Your task to perform on an android device: turn off improve location accuracy Image 0: 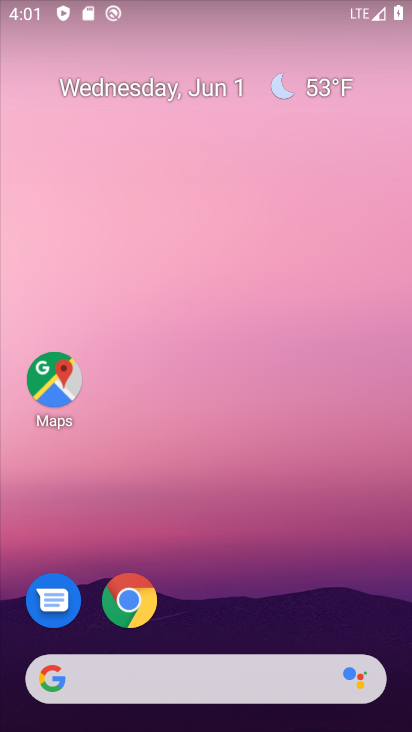
Step 0: press back button
Your task to perform on an android device: turn off improve location accuracy Image 1: 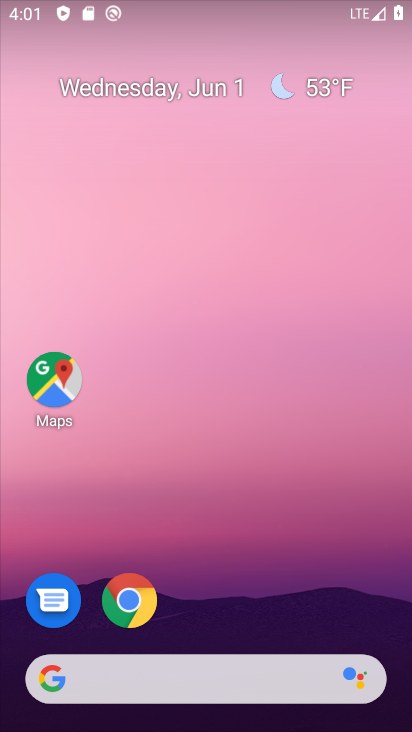
Step 1: drag from (85, 51) to (179, 168)
Your task to perform on an android device: turn off improve location accuracy Image 2: 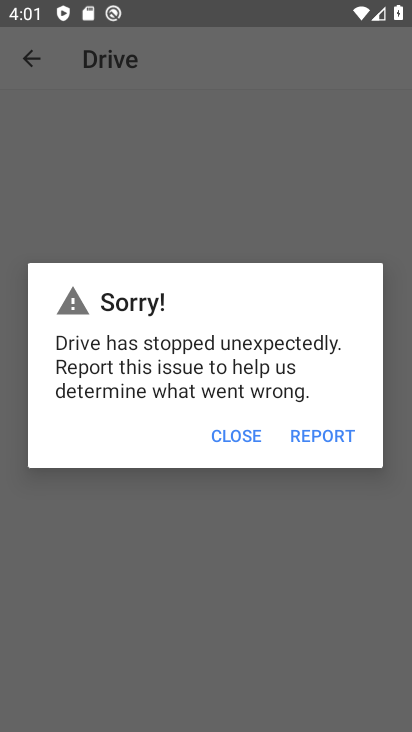
Step 2: click (240, 434)
Your task to perform on an android device: turn off improve location accuracy Image 3: 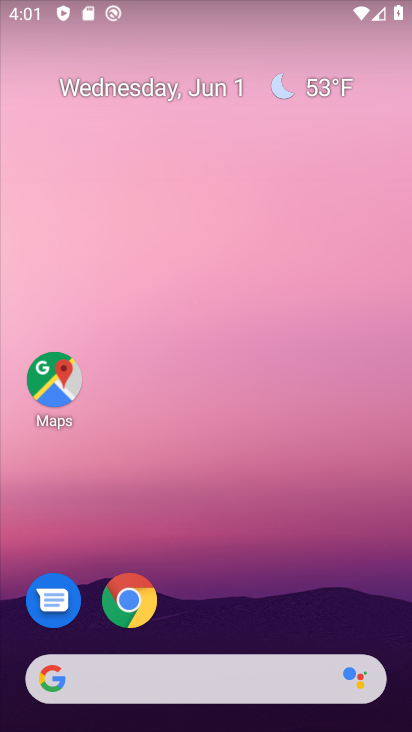
Step 3: drag from (281, 701) to (151, 130)
Your task to perform on an android device: turn off improve location accuracy Image 4: 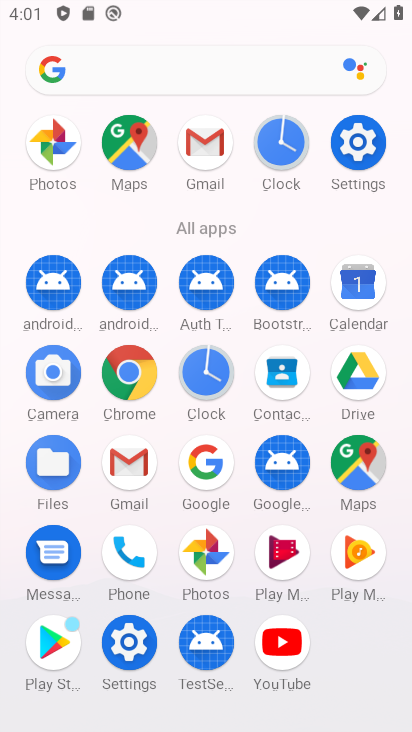
Step 4: click (130, 643)
Your task to perform on an android device: turn off improve location accuracy Image 5: 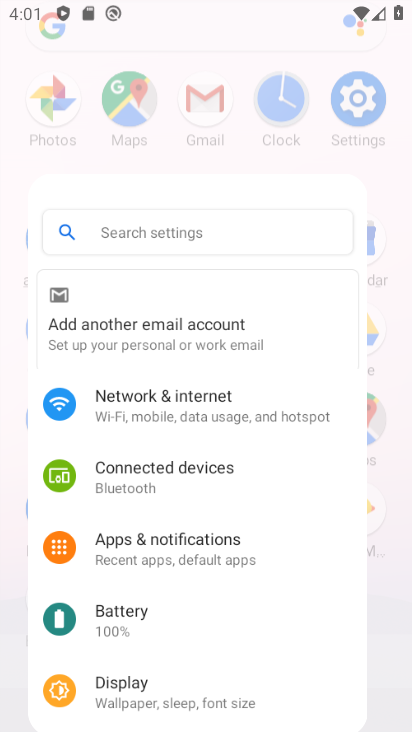
Step 5: click (130, 643)
Your task to perform on an android device: turn off improve location accuracy Image 6: 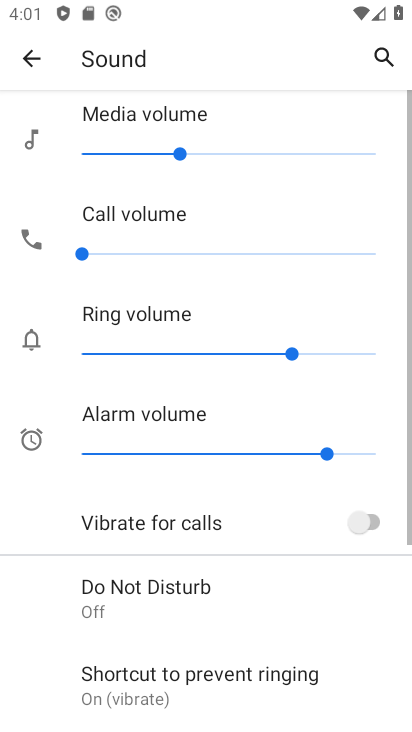
Step 6: click (44, 57)
Your task to perform on an android device: turn off improve location accuracy Image 7: 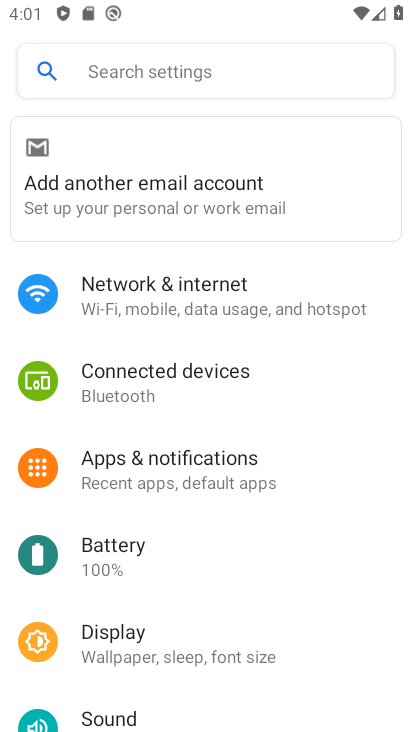
Step 7: drag from (185, 570) to (137, 95)
Your task to perform on an android device: turn off improve location accuracy Image 8: 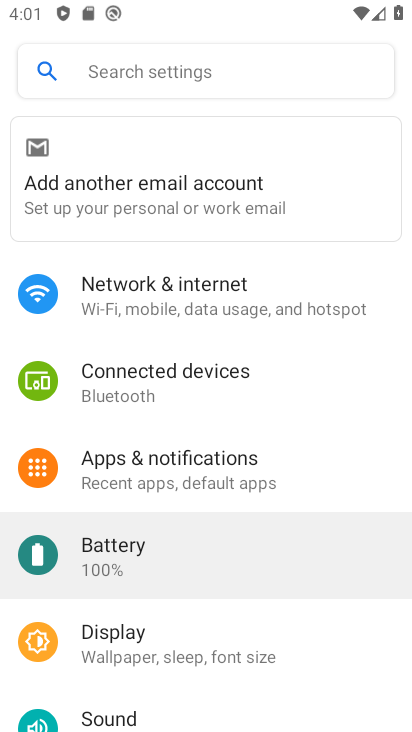
Step 8: drag from (225, 512) to (205, 192)
Your task to perform on an android device: turn off improve location accuracy Image 9: 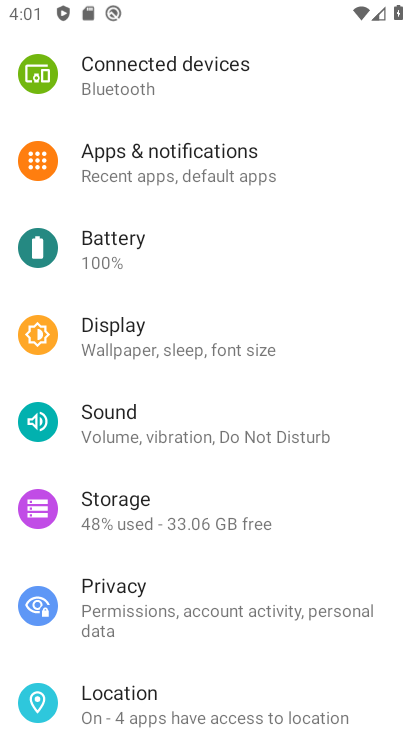
Step 9: drag from (195, 567) to (133, 211)
Your task to perform on an android device: turn off improve location accuracy Image 10: 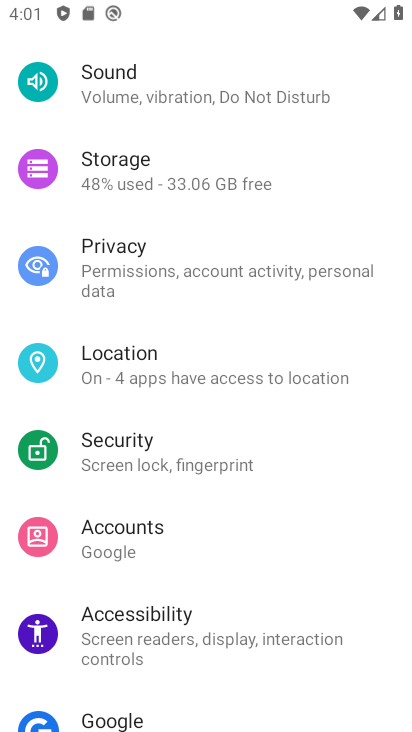
Step 10: drag from (117, 559) to (116, 109)
Your task to perform on an android device: turn off improve location accuracy Image 11: 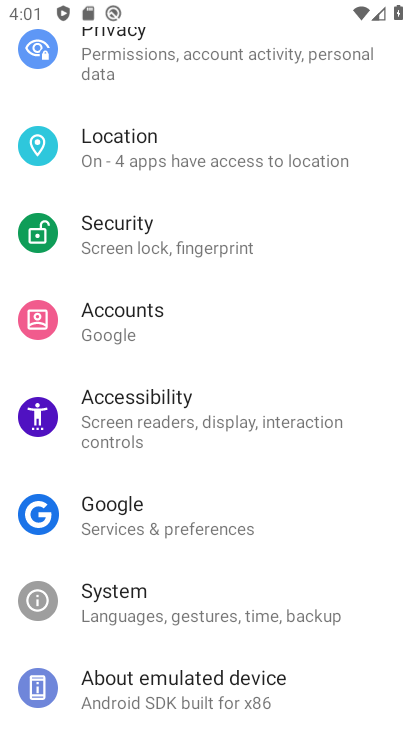
Step 11: click (144, 159)
Your task to perform on an android device: turn off improve location accuracy Image 12: 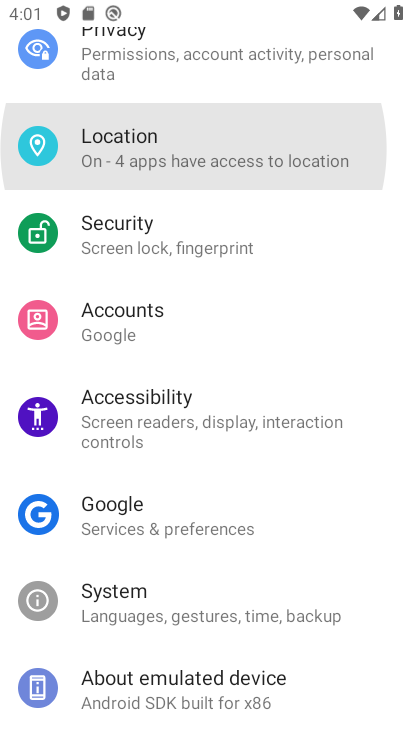
Step 12: click (148, 159)
Your task to perform on an android device: turn off improve location accuracy Image 13: 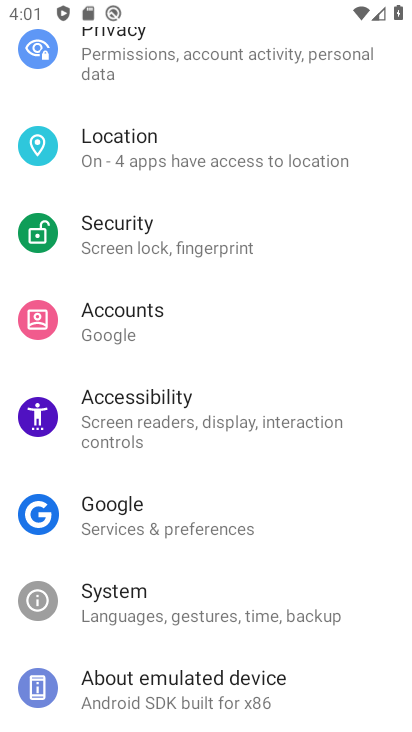
Step 13: click (157, 162)
Your task to perform on an android device: turn off improve location accuracy Image 14: 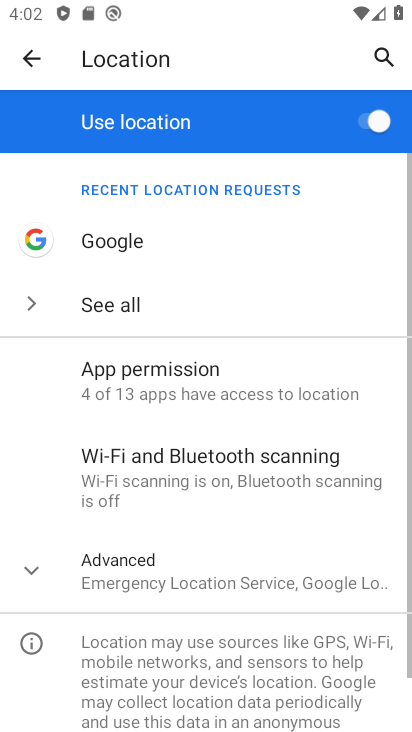
Step 14: click (128, 568)
Your task to perform on an android device: turn off improve location accuracy Image 15: 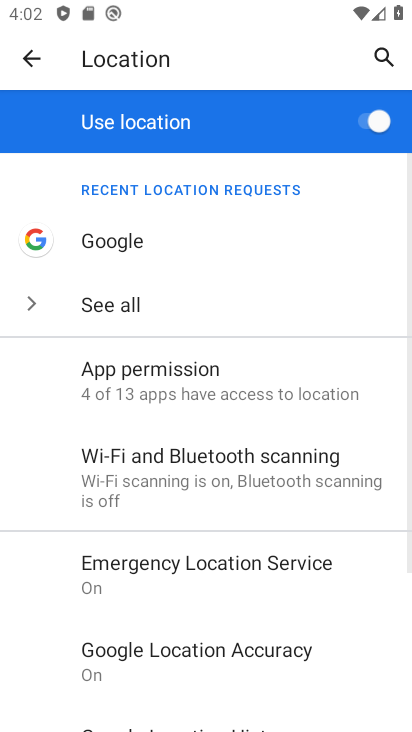
Step 15: drag from (241, 596) to (168, 179)
Your task to perform on an android device: turn off improve location accuracy Image 16: 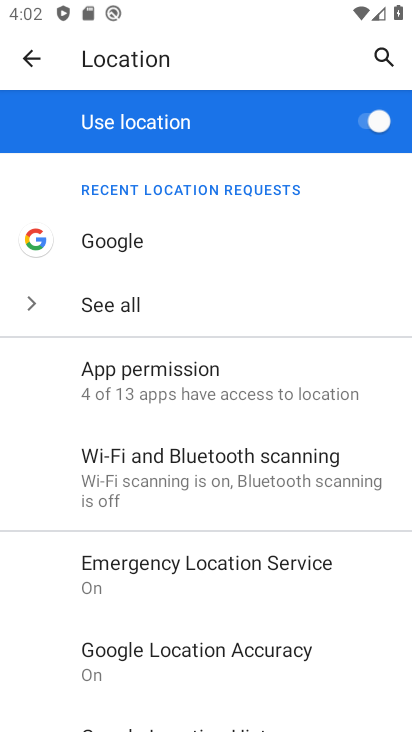
Step 16: drag from (222, 496) to (217, 284)
Your task to perform on an android device: turn off improve location accuracy Image 17: 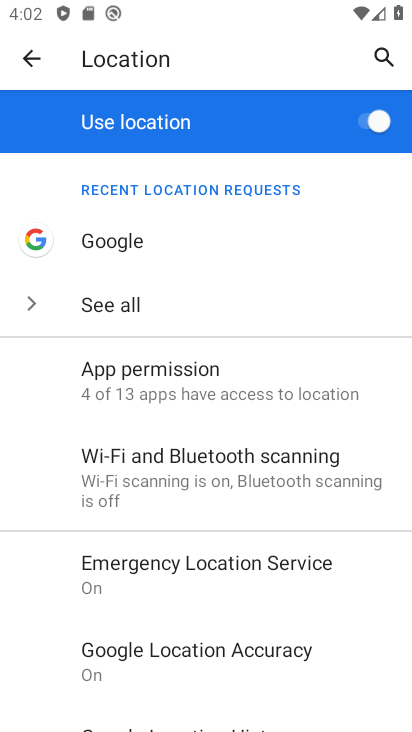
Step 17: drag from (264, 561) to (264, 333)
Your task to perform on an android device: turn off improve location accuracy Image 18: 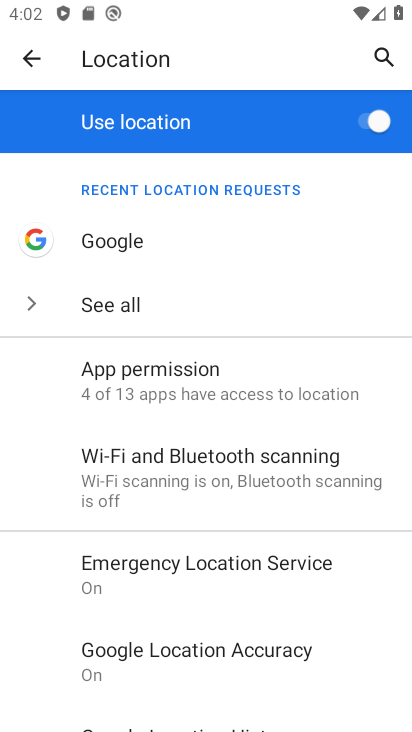
Step 18: drag from (233, 603) to (205, 249)
Your task to perform on an android device: turn off improve location accuracy Image 19: 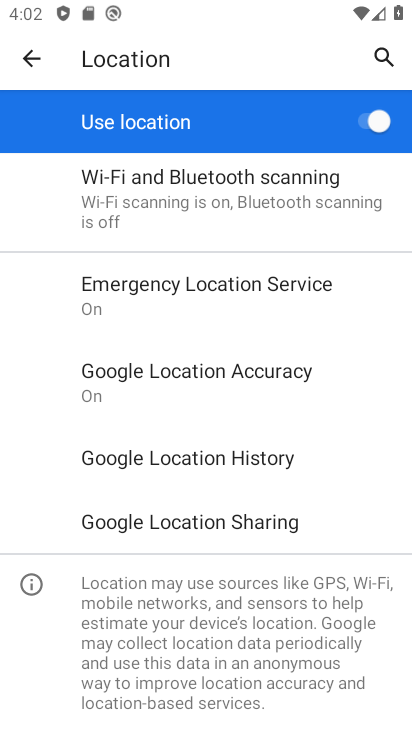
Step 19: click (192, 377)
Your task to perform on an android device: turn off improve location accuracy Image 20: 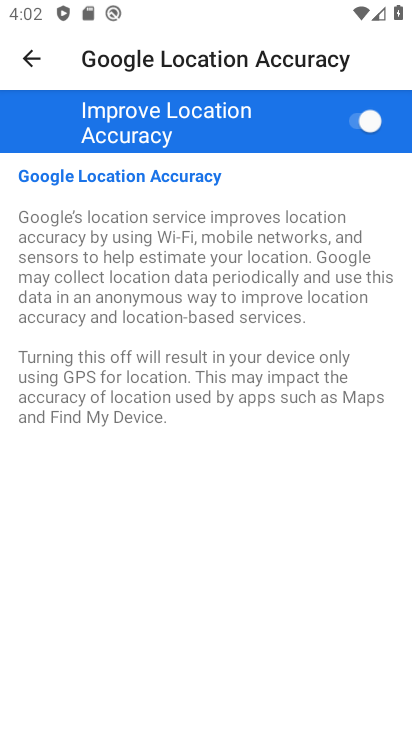
Step 20: click (364, 122)
Your task to perform on an android device: turn off improve location accuracy Image 21: 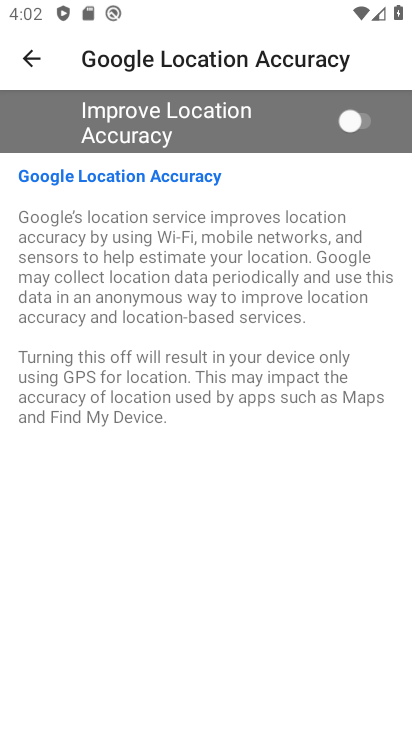
Step 21: task complete